Your task to perform on an android device: Empty the shopping cart on target.com. Image 0: 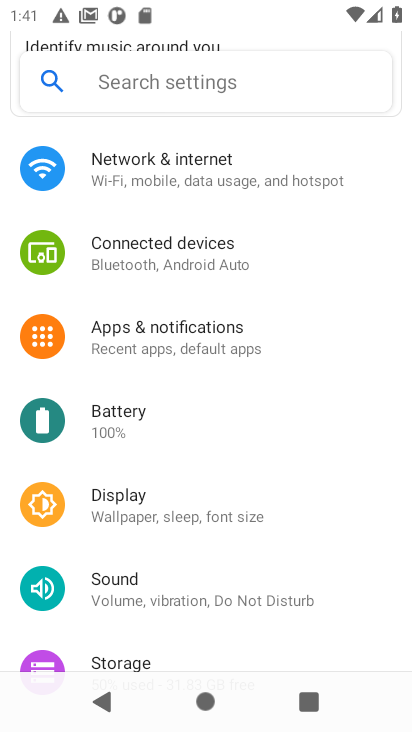
Step 0: press home button
Your task to perform on an android device: Empty the shopping cart on target.com. Image 1: 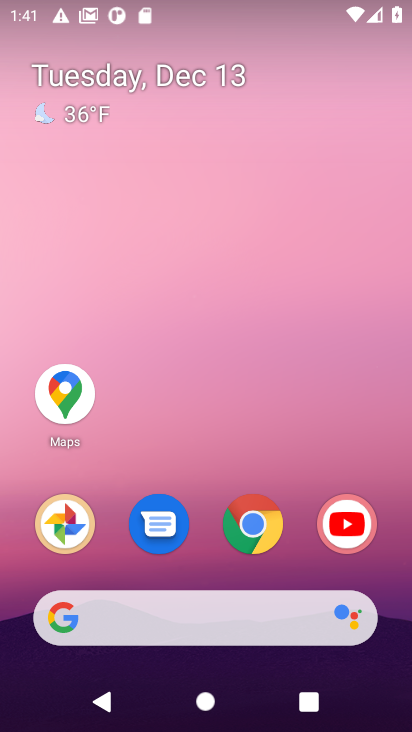
Step 1: click (248, 532)
Your task to perform on an android device: Empty the shopping cart on target.com. Image 2: 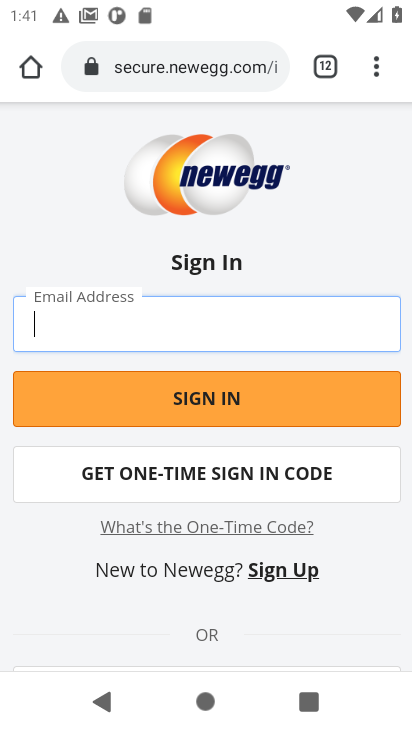
Step 2: click (156, 63)
Your task to perform on an android device: Empty the shopping cart on target.com. Image 3: 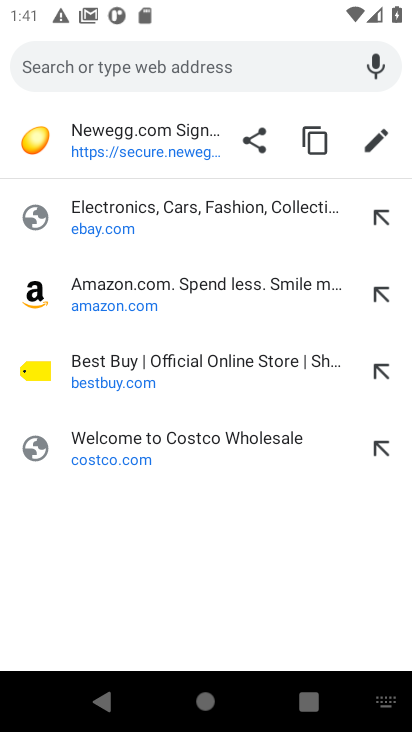
Step 3: type "target.com"
Your task to perform on an android device: Empty the shopping cart on target.com. Image 4: 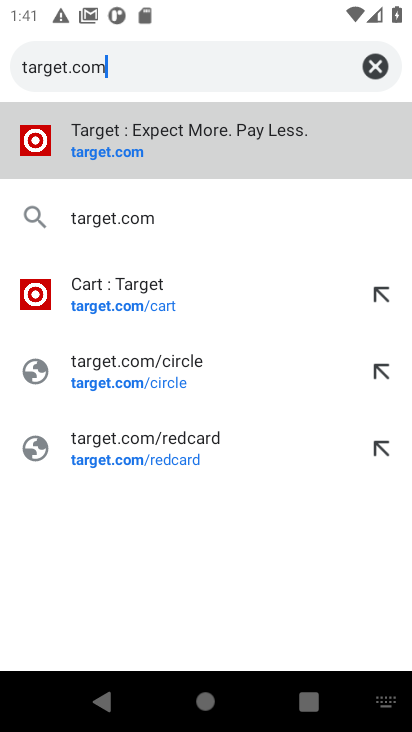
Step 4: click (101, 161)
Your task to perform on an android device: Empty the shopping cart on target.com. Image 5: 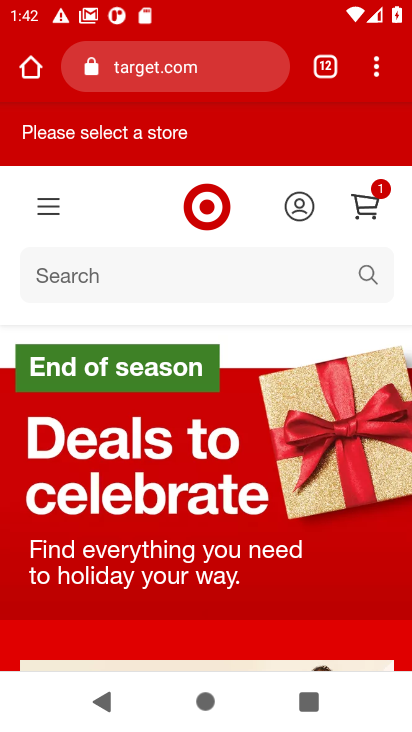
Step 5: click (365, 205)
Your task to perform on an android device: Empty the shopping cart on target.com. Image 6: 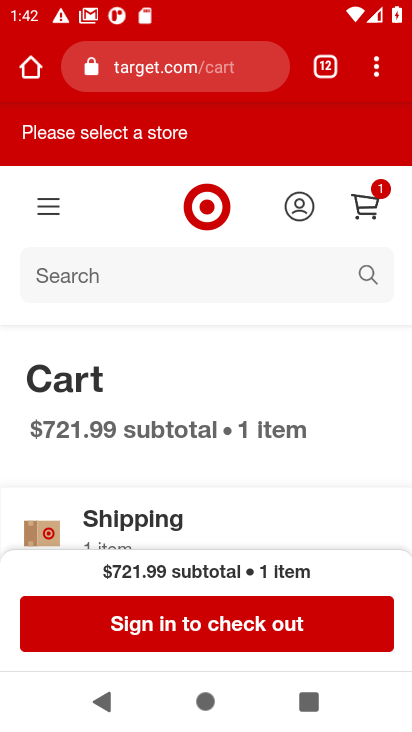
Step 6: drag from (274, 455) to (290, 160)
Your task to perform on an android device: Empty the shopping cart on target.com. Image 7: 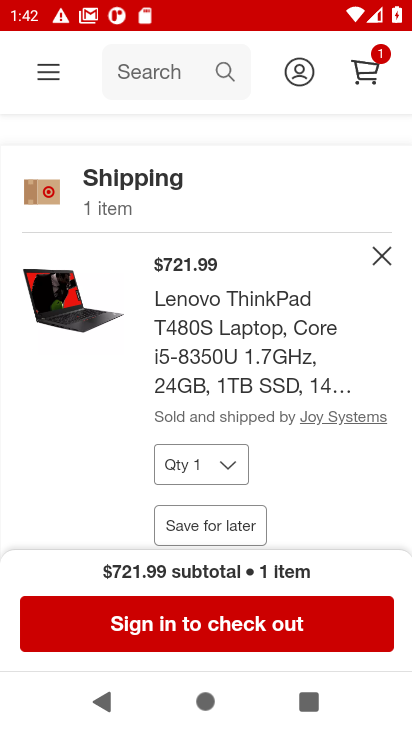
Step 7: click (379, 254)
Your task to perform on an android device: Empty the shopping cart on target.com. Image 8: 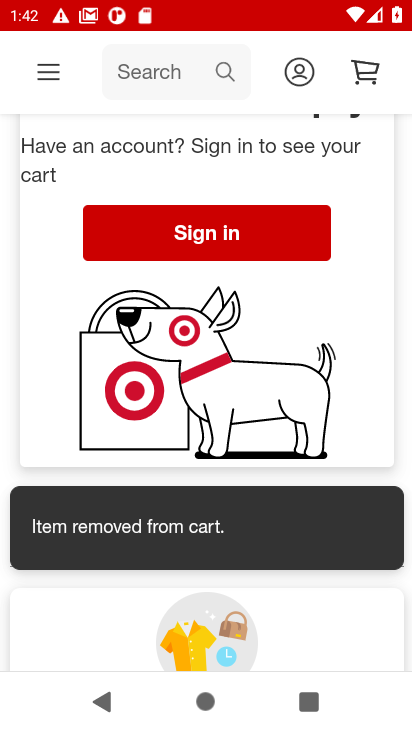
Step 8: task complete